Your task to perform on an android device: Empty the shopping cart on target. Image 0: 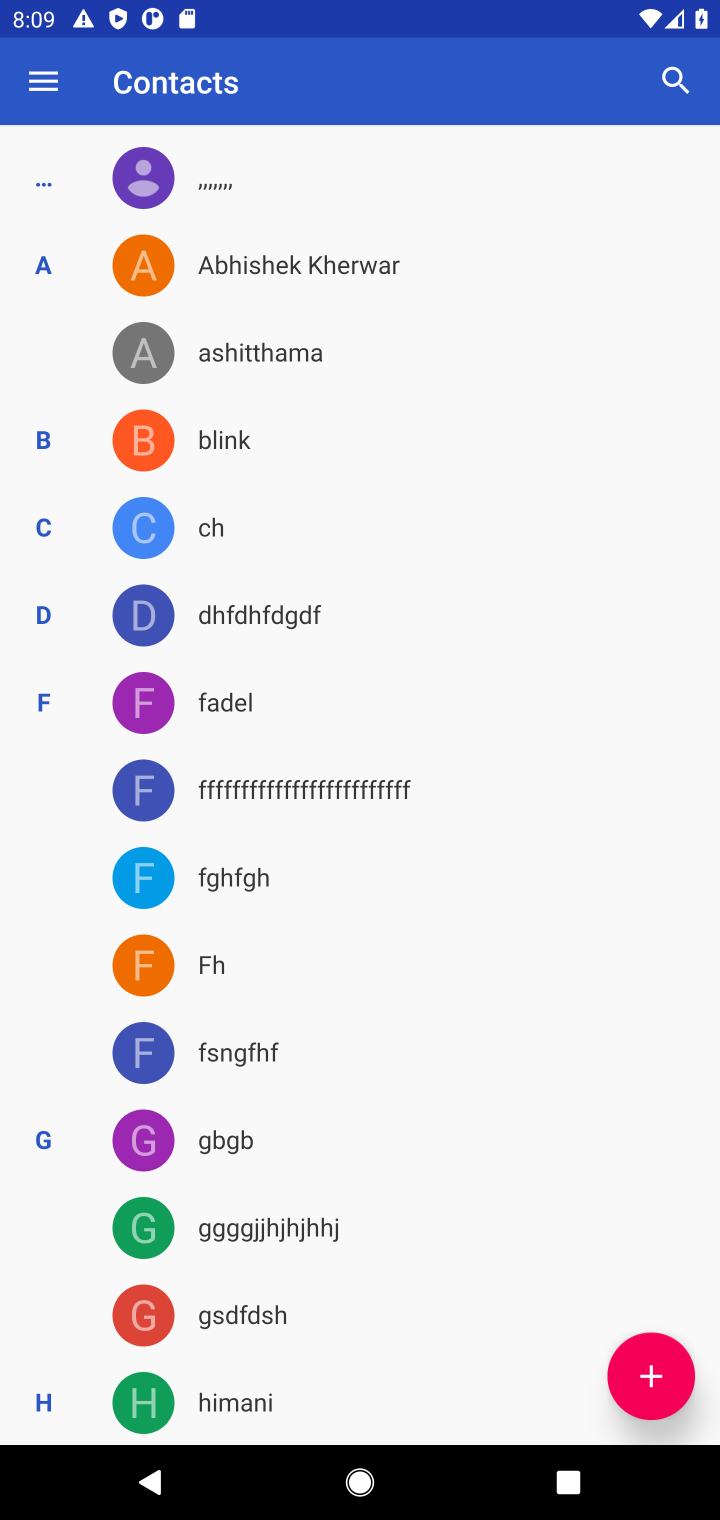
Step 0: press home button
Your task to perform on an android device: Empty the shopping cart on target. Image 1: 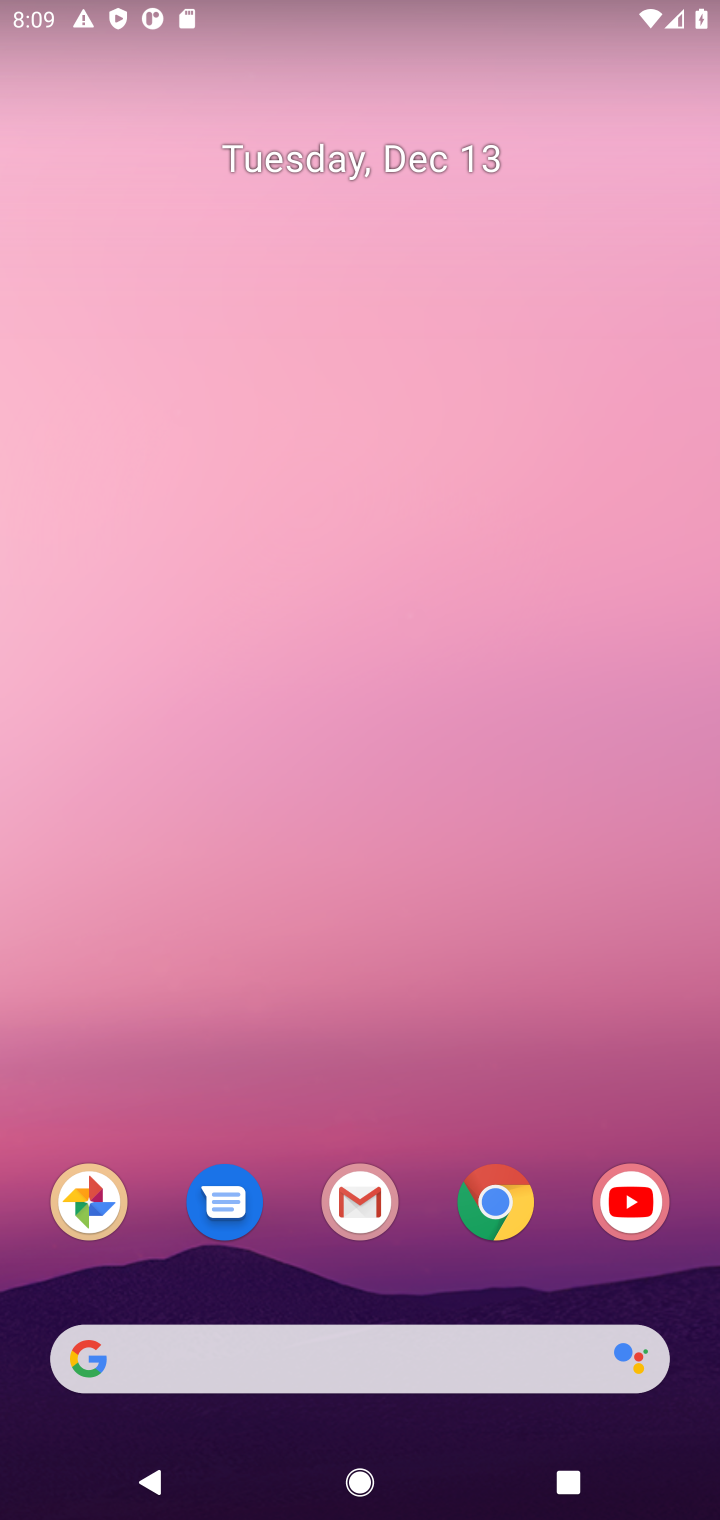
Step 1: click (511, 1185)
Your task to perform on an android device: Empty the shopping cart on target. Image 2: 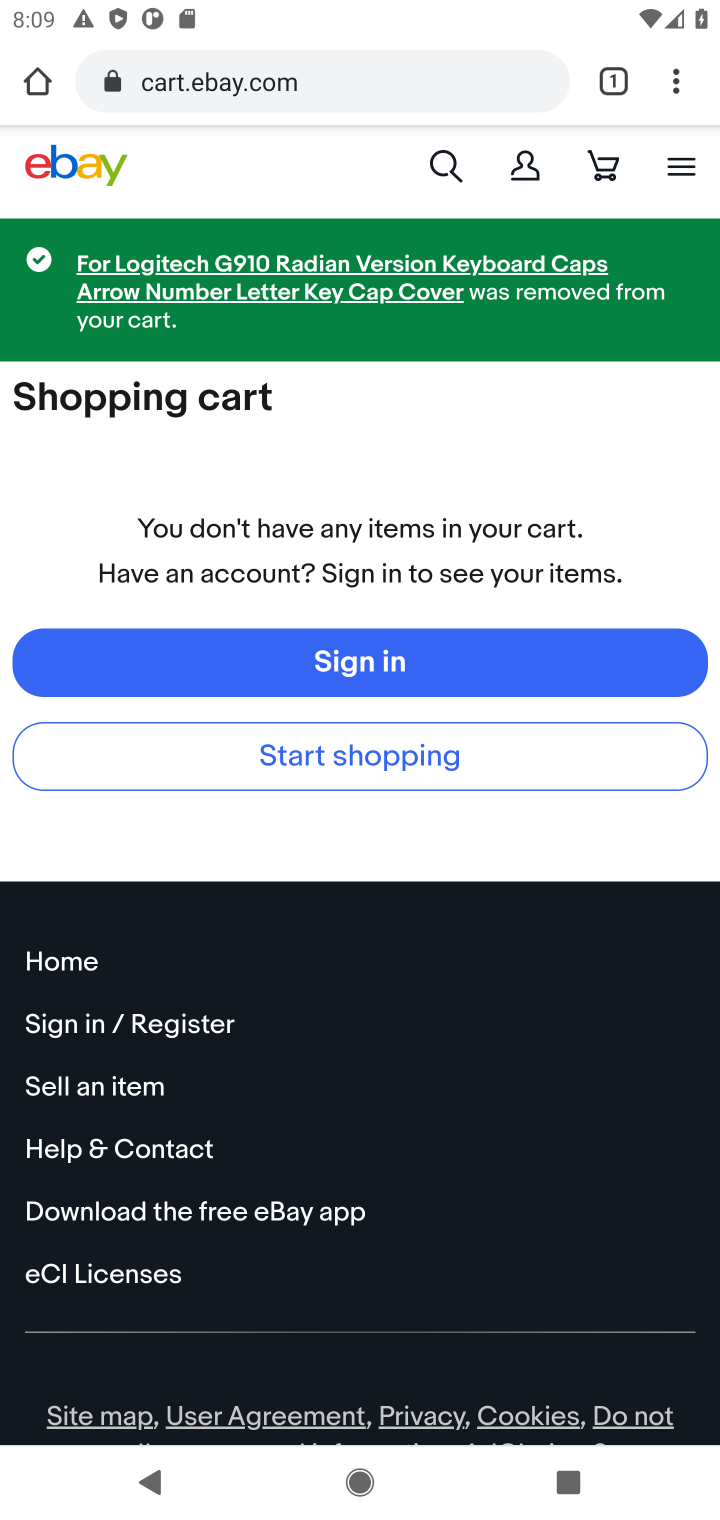
Step 2: click (396, 64)
Your task to perform on an android device: Empty the shopping cart on target. Image 3: 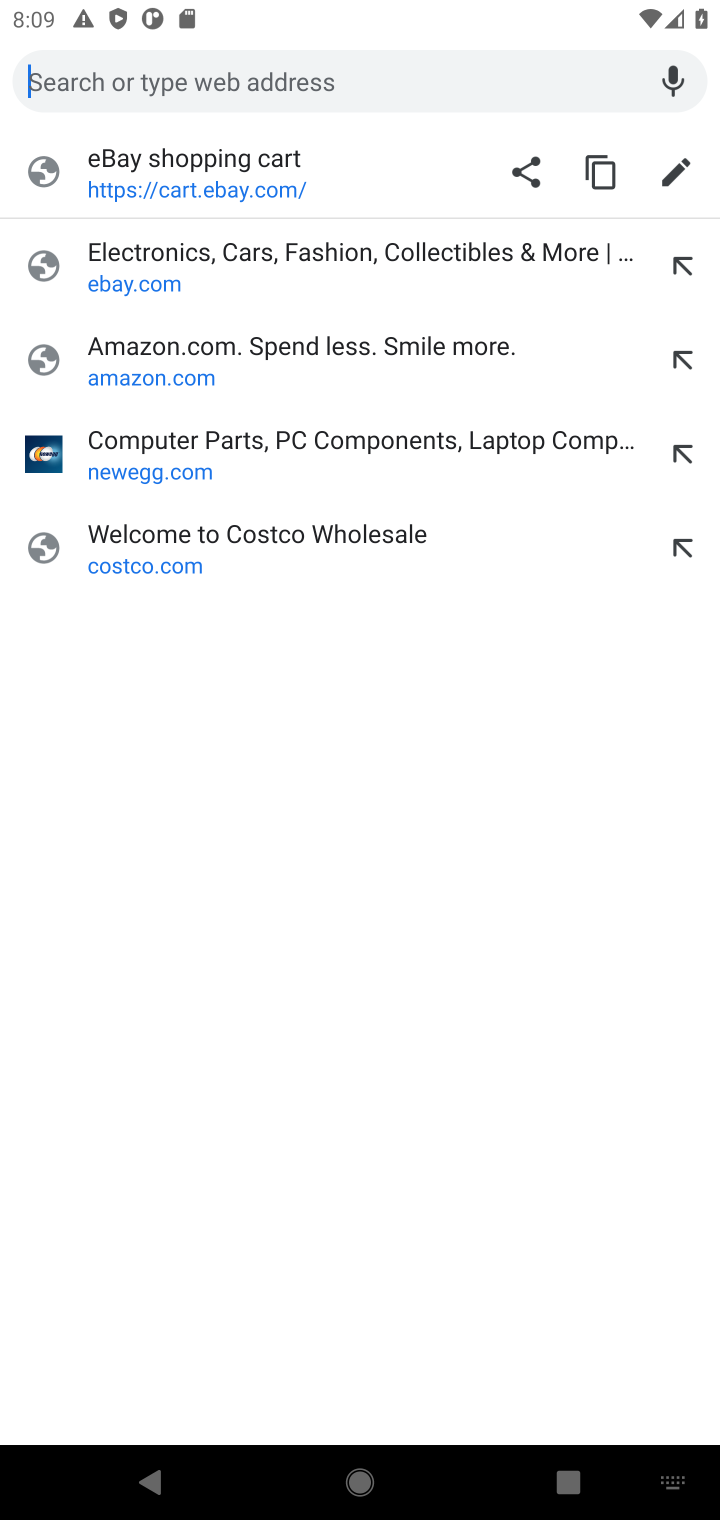
Step 3: type "target.com"
Your task to perform on an android device: Empty the shopping cart on target. Image 4: 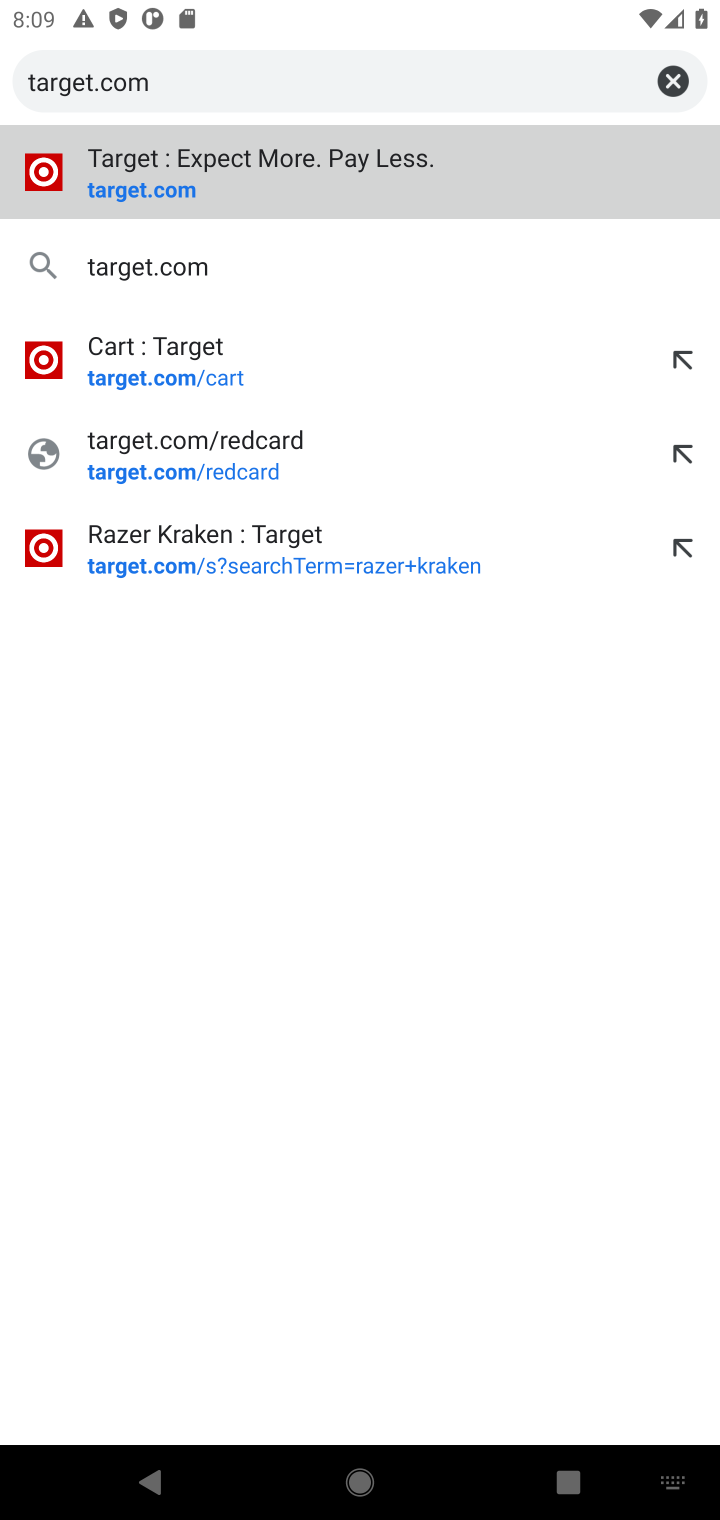
Step 4: click (155, 180)
Your task to perform on an android device: Empty the shopping cart on target. Image 5: 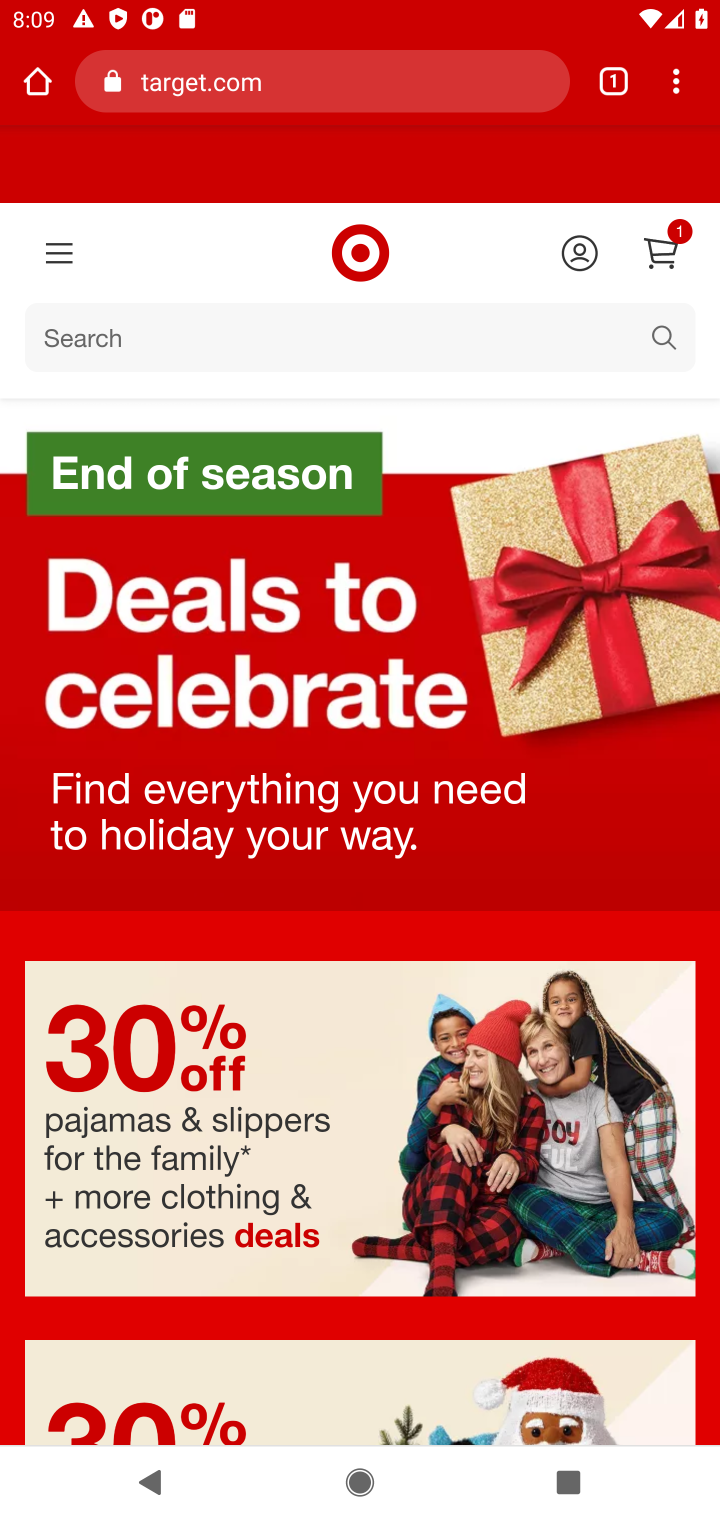
Step 5: click (666, 257)
Your task to perform on an android device: Empty the shopping cart on target. Image 6: 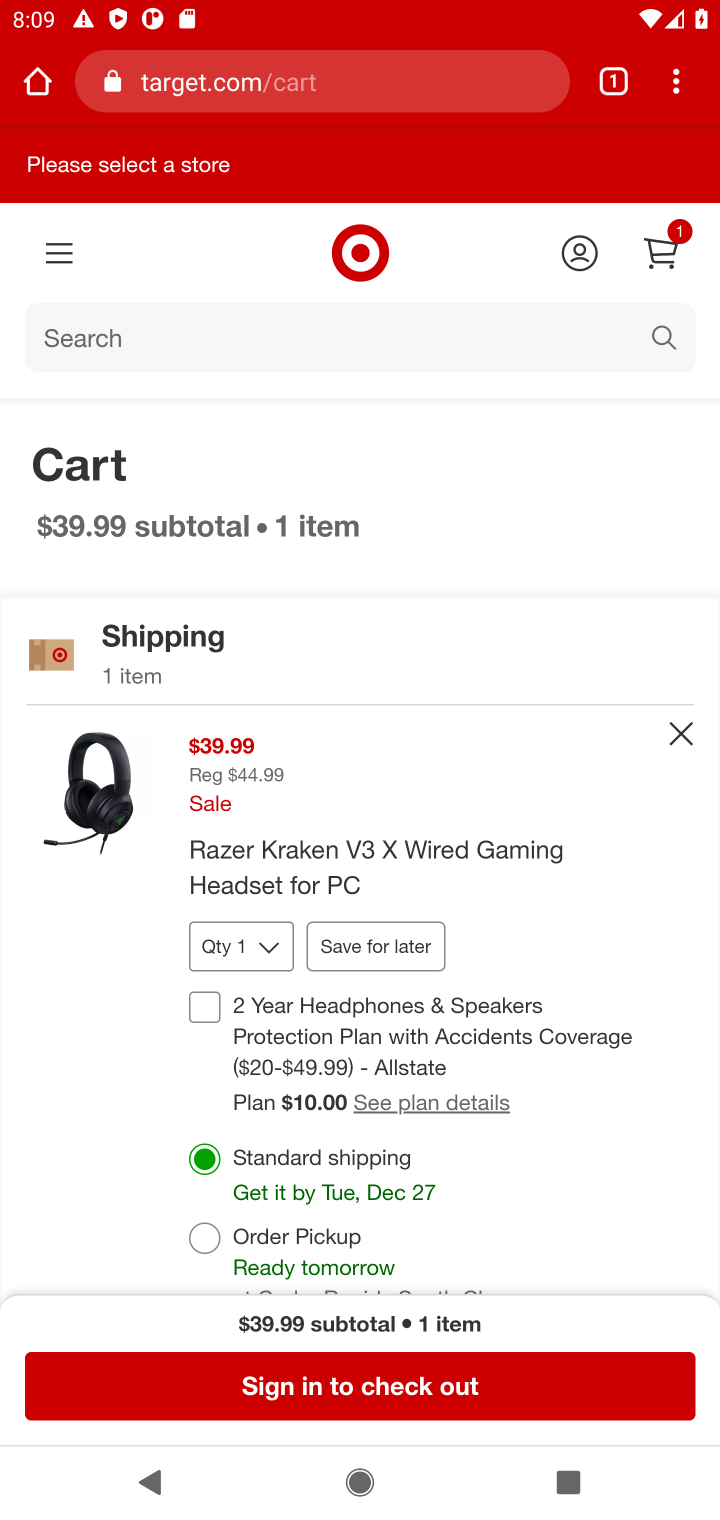
Step 6: click (686, 729)
Your task to perform on an android device: Empty the shopping cart on target. Image 7: 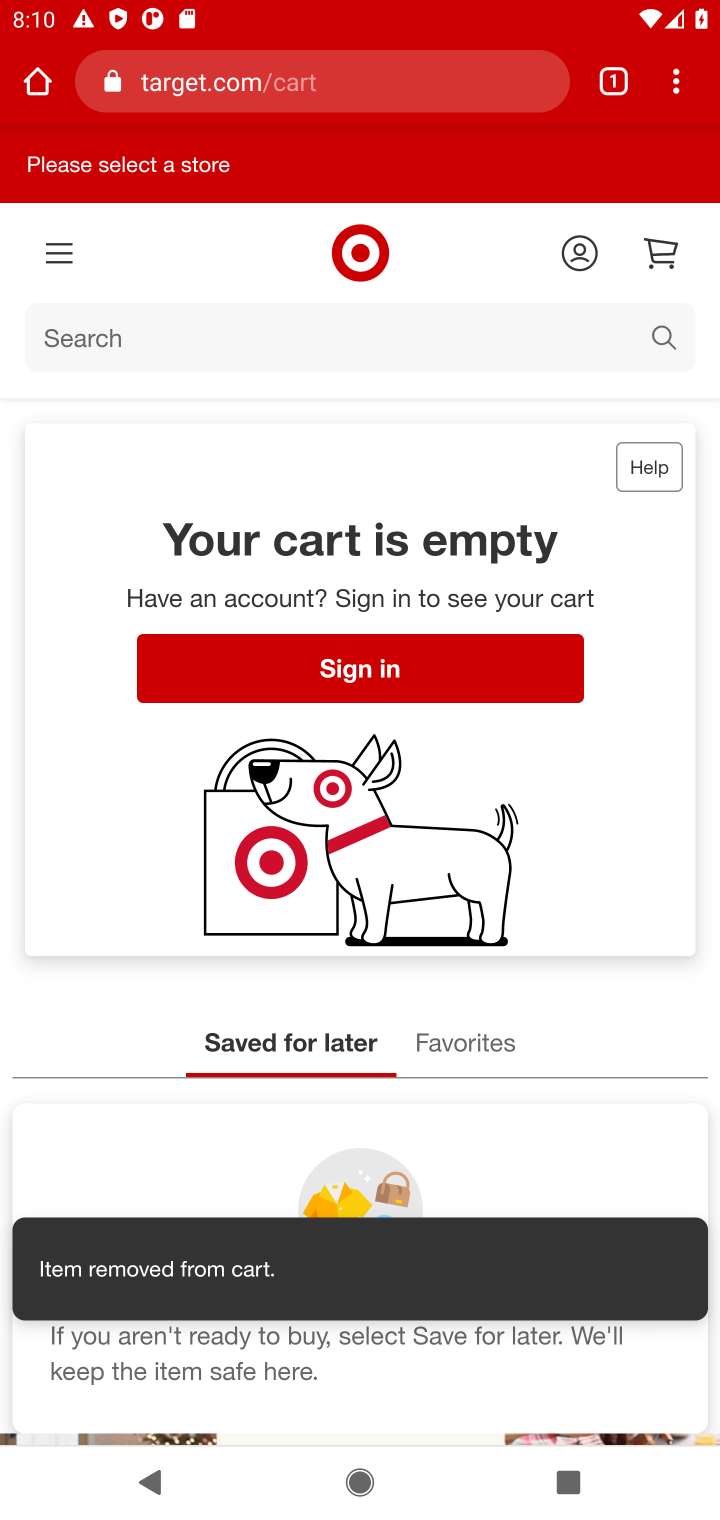
Step 7: task complete